Your task to perform on an android device: change the clock style Image 0: 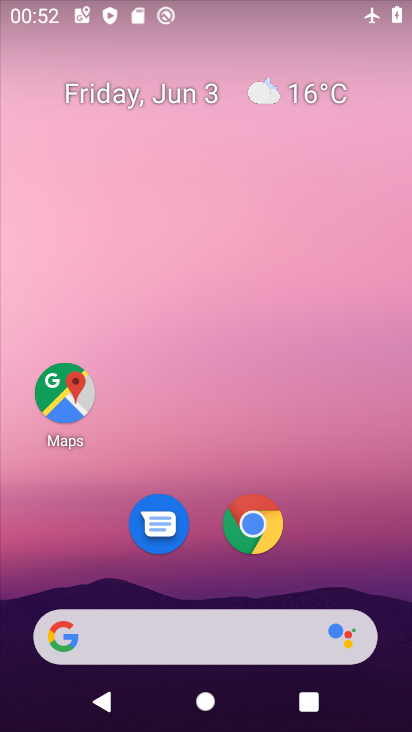
Step 0: drag from (253, 462) to (232, 0)
Your task to perform on an android device: change the clock style Image 1: 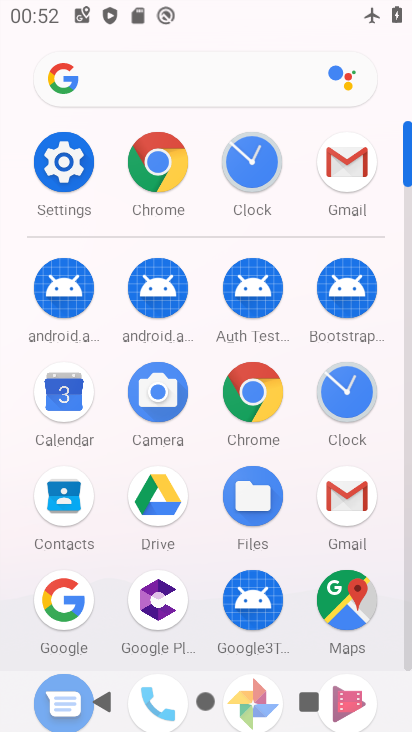
Step 1: click (248, 176)
Your task to perform on an android device: change the clock style Image 2: 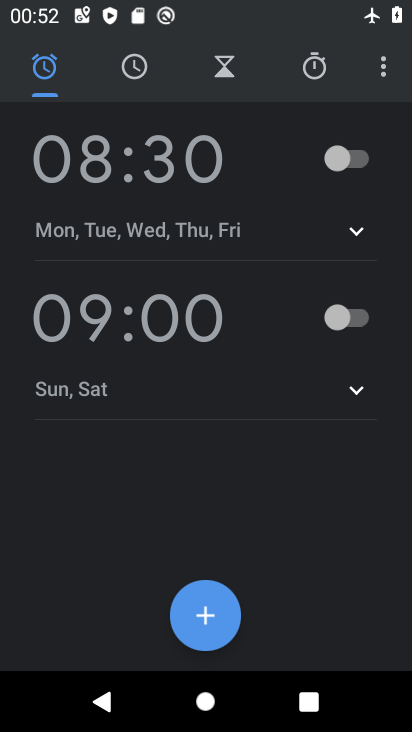
Step 2: click (377, 69)
Your task to perform on an android device: change the clock style Image 3: 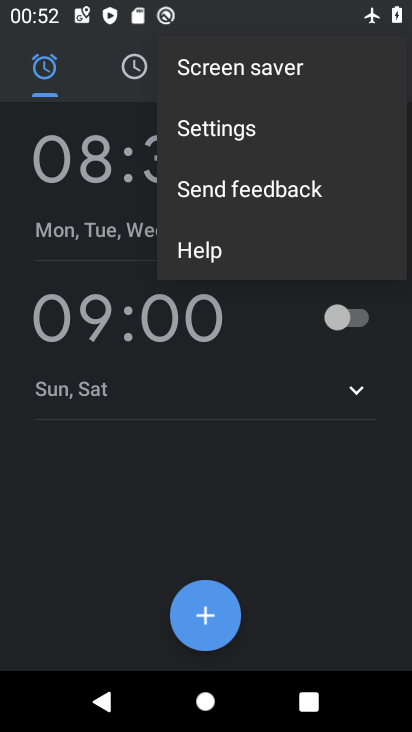
Step 3: click (296, 136)
Your task to perform on an android device: change the clock style Image 4: 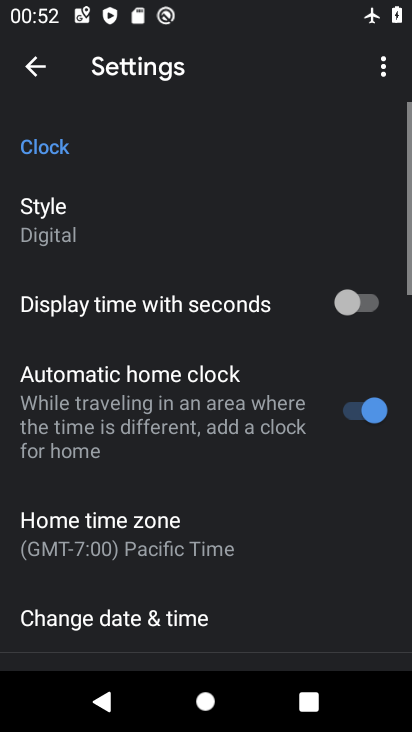
Step 4: click (116, 210)
Your task to perform on an android device: change the clock style Image 5: 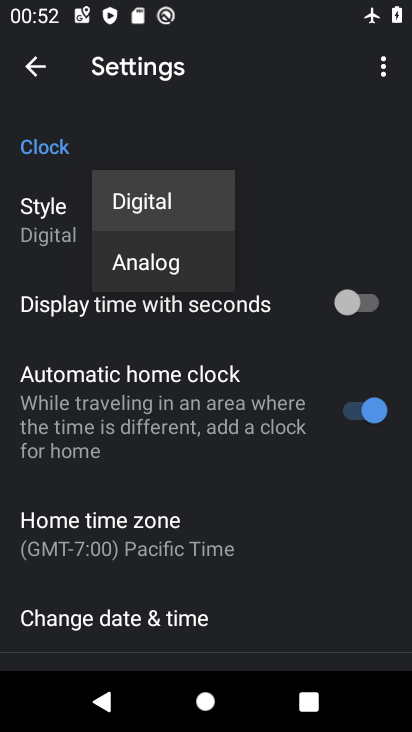
Step 5: click (143, 256)
Your task to perform on an android device: change the clock style Image 6: 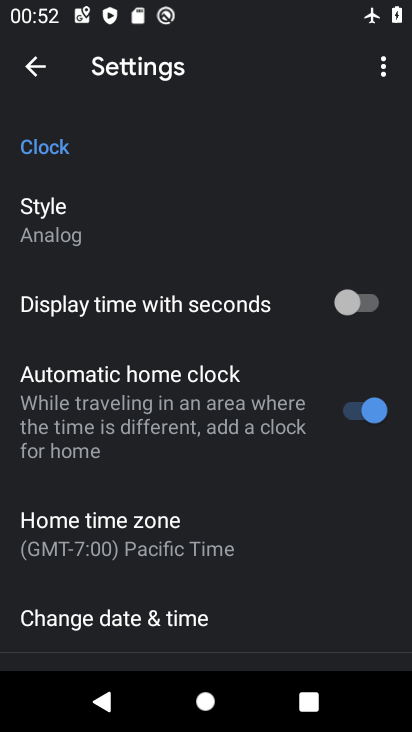
Step 6: click (44, 66)
Your task to perform on an android device: change the clock style Image 7: 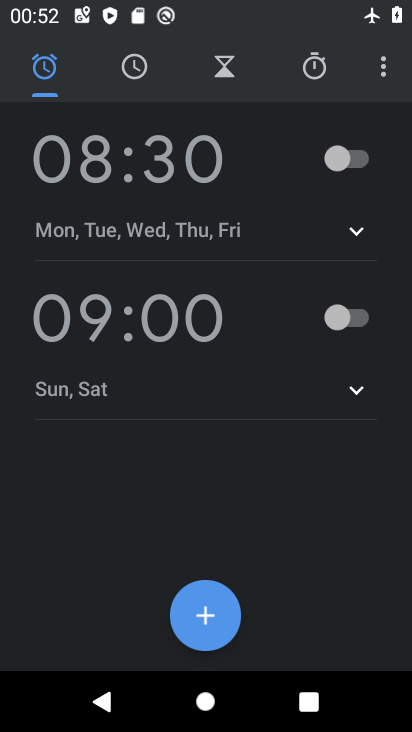
Step 7: click (136, 73)
Your task to perform on an android device: change the clock style Image 8: 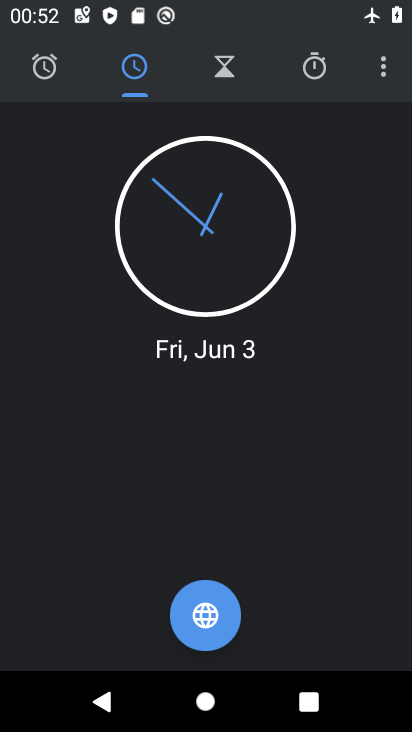
Step 8: task complete